Your task to perform on an android device: turn off data saver in the chrome app Image 0: 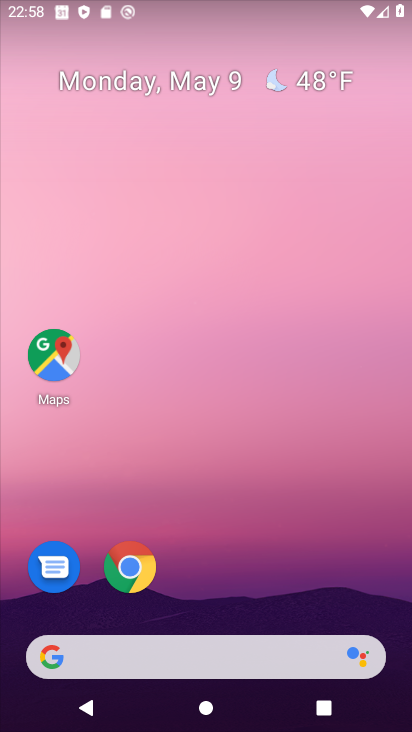
Step 0: click (131, 567)
Your task to perform on an android device: turn off data saver in the chrome app Image 1: 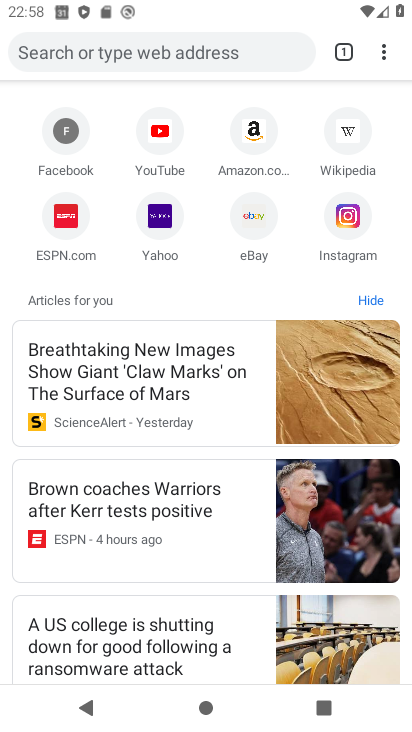
Step 1: click (384, 54)
Your task to perform on an android device: turn off data saver in the chrome app Image 2: 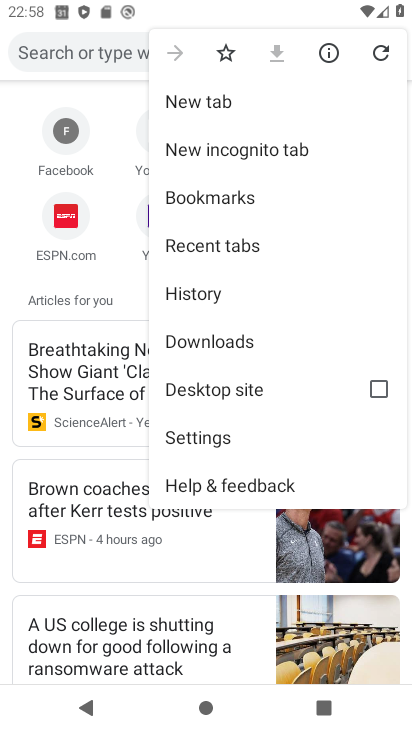
Step 2: click (204, 444)
Your task to perform on an android device: turn off data saver in the chrome app Image 3: 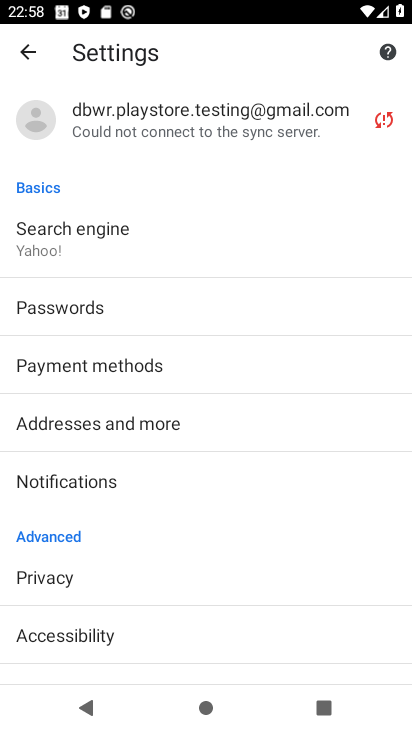
Step 3: drag from (107, 559) to (135, 437)
Your task to perform on an android device: turn off data saver in the chrome app Image 4: 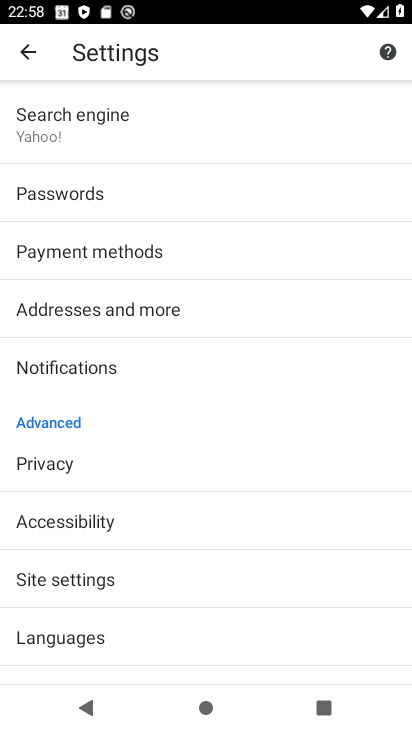
Step 4: drag from (102, 564) to (146, 441)
Your task to perform on an android device: turn off data saver in the chrome app Image 5: 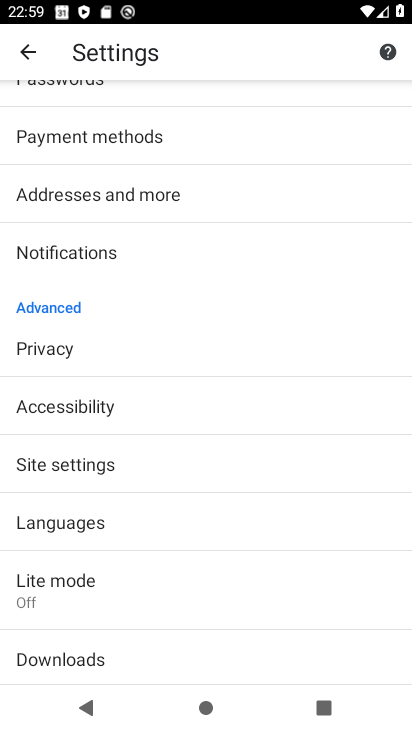
Step 5: click (82, 586)
Your task to perform on an android device: turn off data saver in the chrome app Image 6: 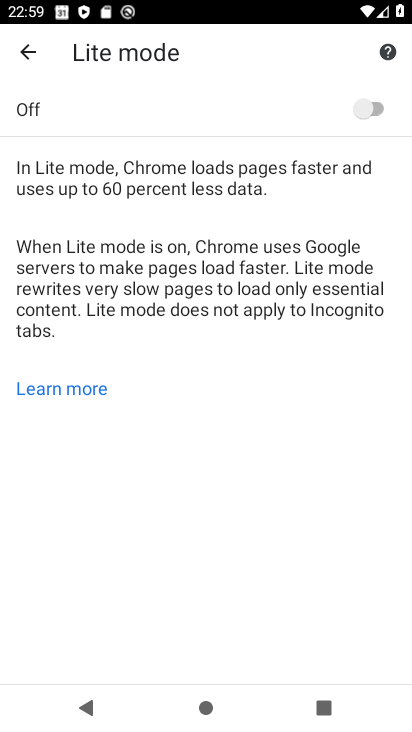
Step 6: task complete